Your task to perform on an android device: install app "Pinterest" Image 0: 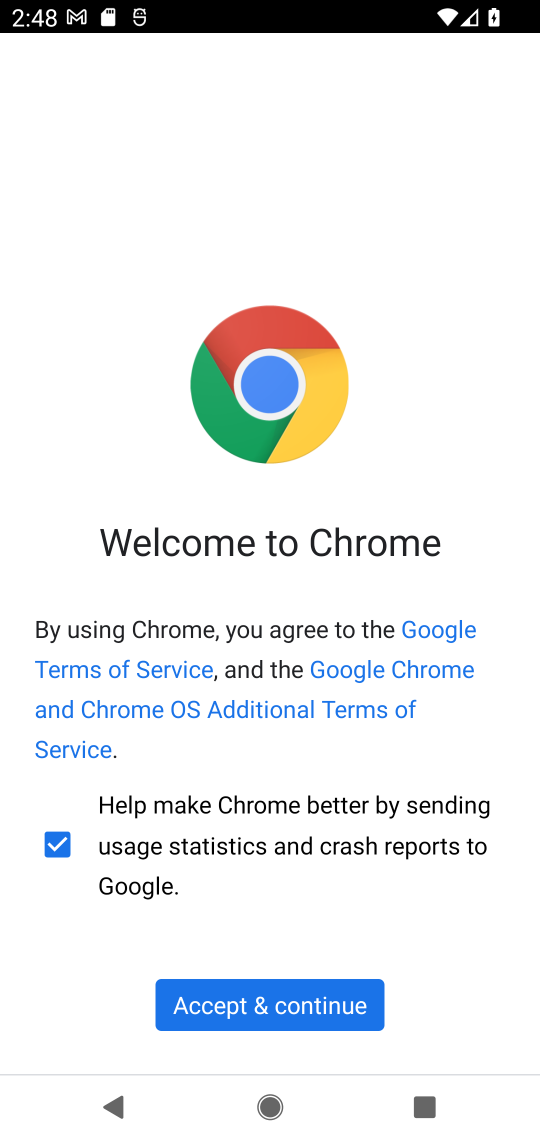
Step 0: press home button
Your task to perform on an android device: install app "Pinterest" Image 1: 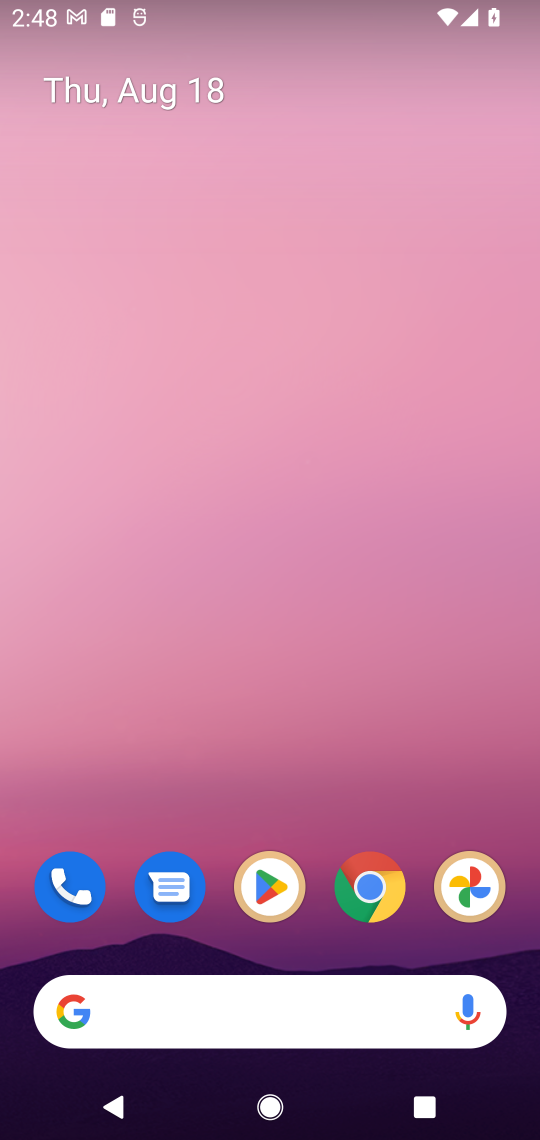
Step 1: click (276, 903)
Your task to perform on an android device: install app "Pinterest" Image 2: 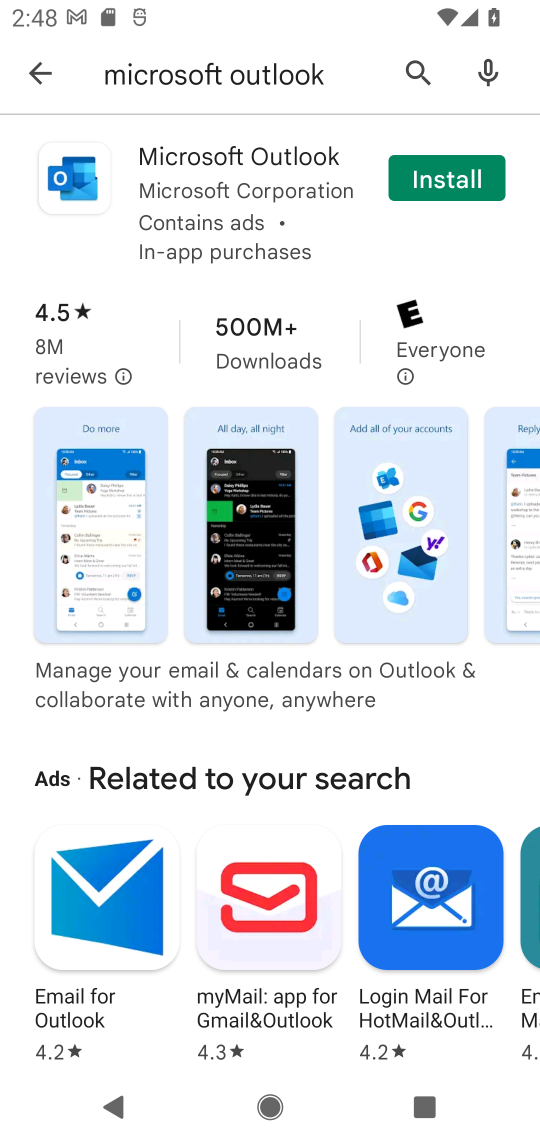
Step 2: click (406, 75)
Your task to perform on an android device: install app "Pinterest" Image 3: 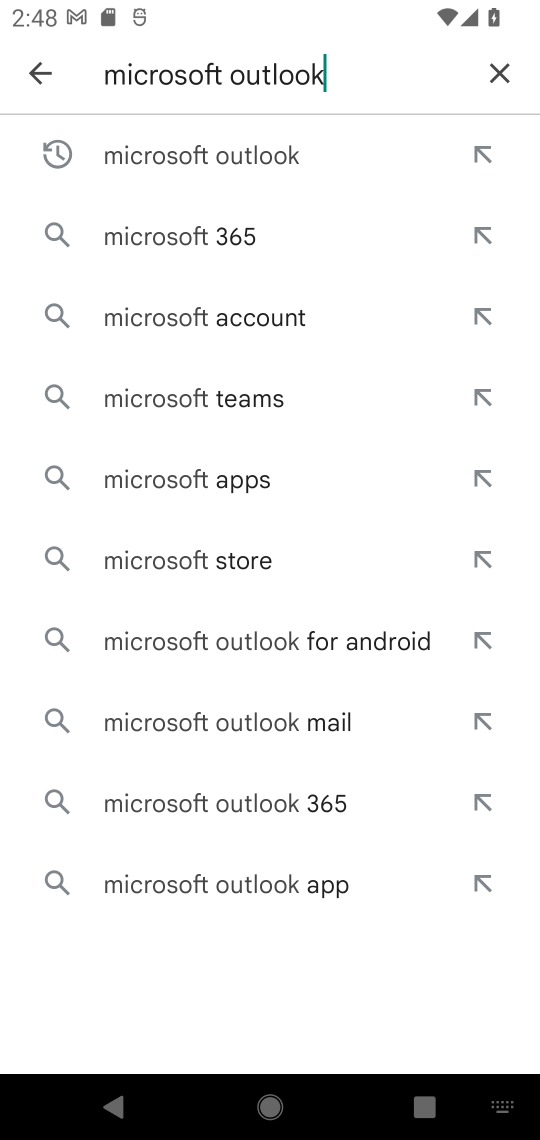
Step 3: click (495, 69)
Your task to perform on an android device: install app "Pinterest" Image 4: 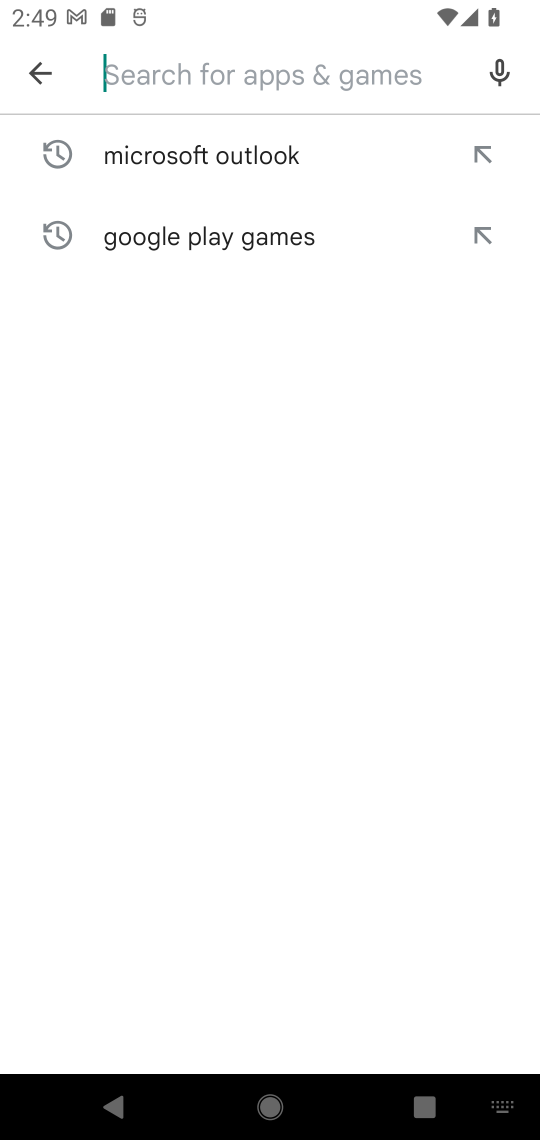
Step 4: type "Pinterest"
Your task to perform on an android device: install app "Pinterest" Image 5: 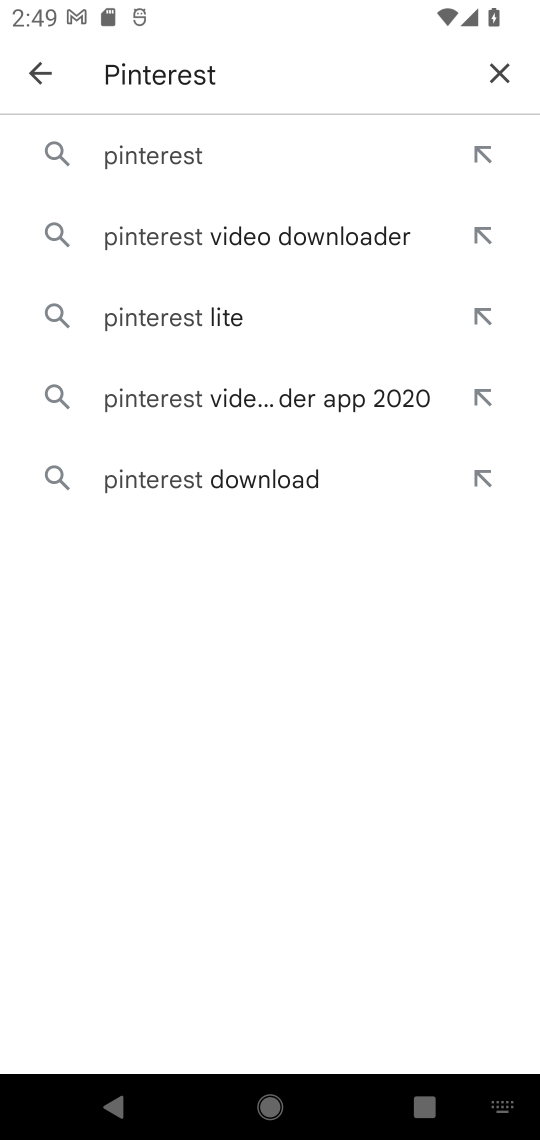
Step 5: click (187, 165)
Your task to perform on an android device: install app "Pinterest" Image 6: 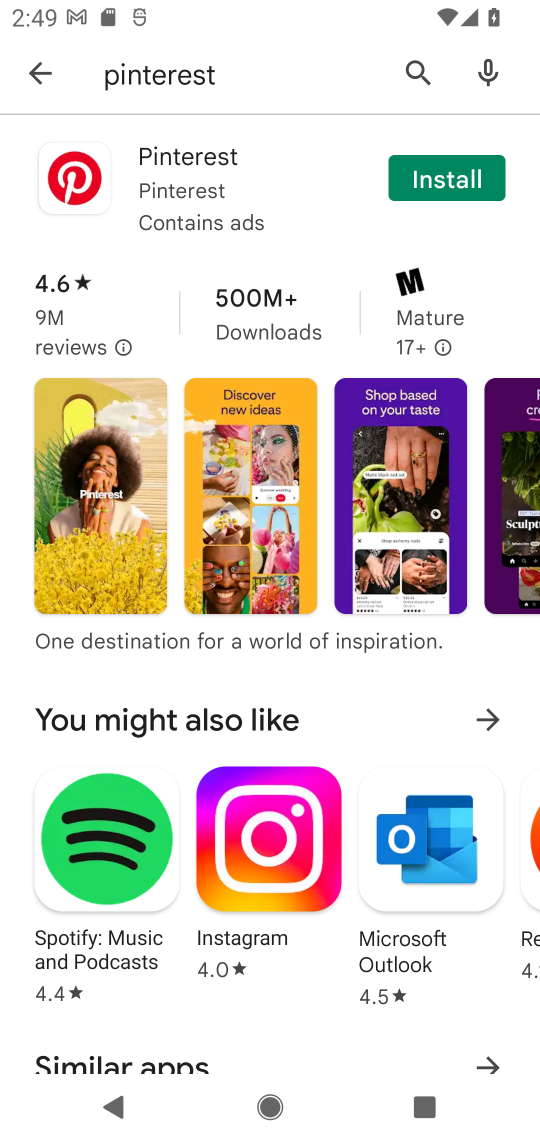
Step 6: click (441, 176)
Your task to perform on an android device: install app "Pinterest" Image 7: 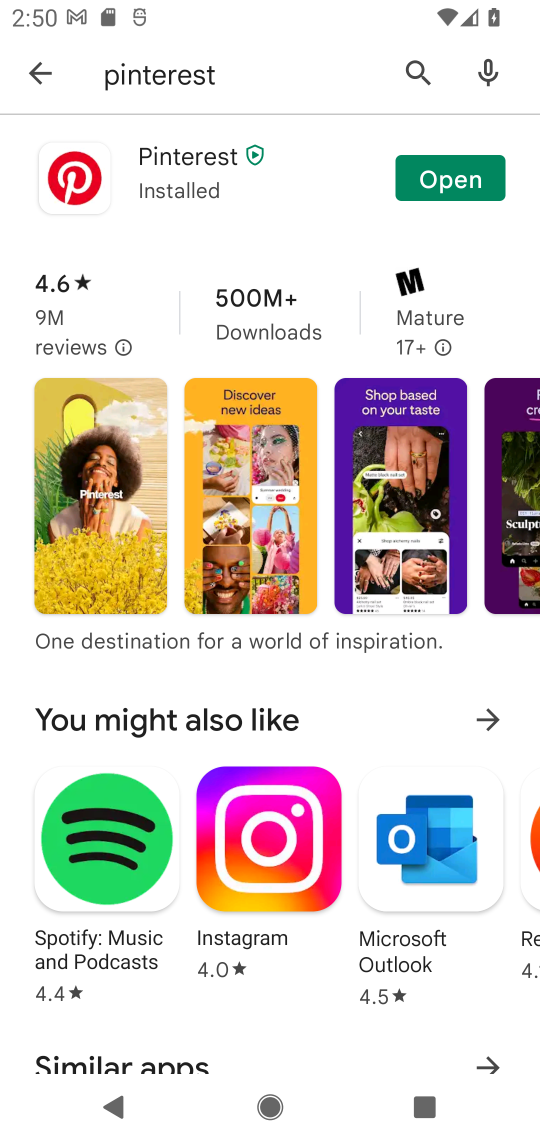
Step 7: click (439, 184)
Your task to perform on an android device: install app "Pinterest" Image 8: 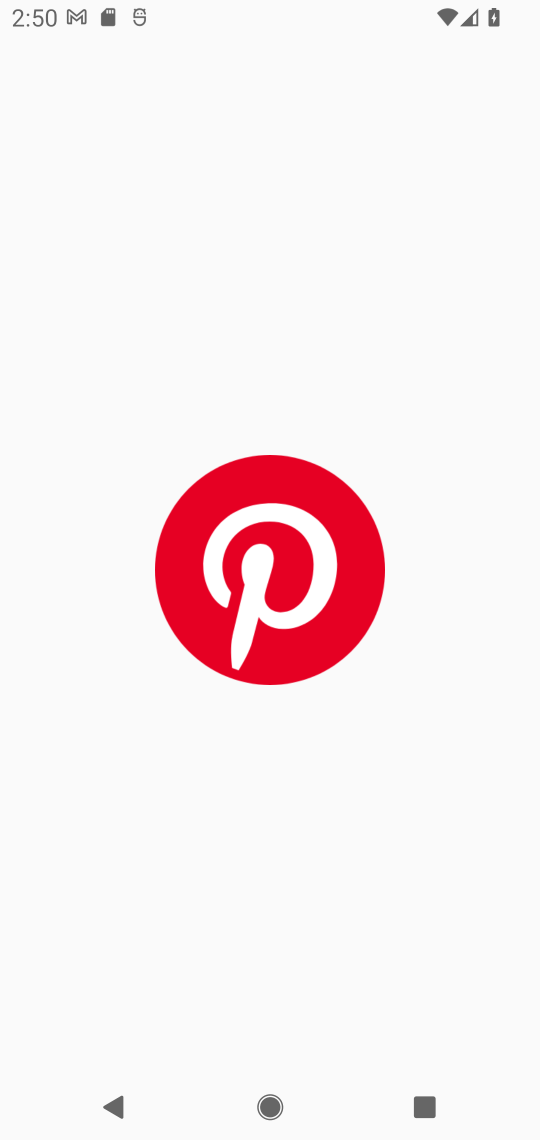
Step 8: task complete